Your task to perform on an android device: Do I have any events this weekend? Image 0: 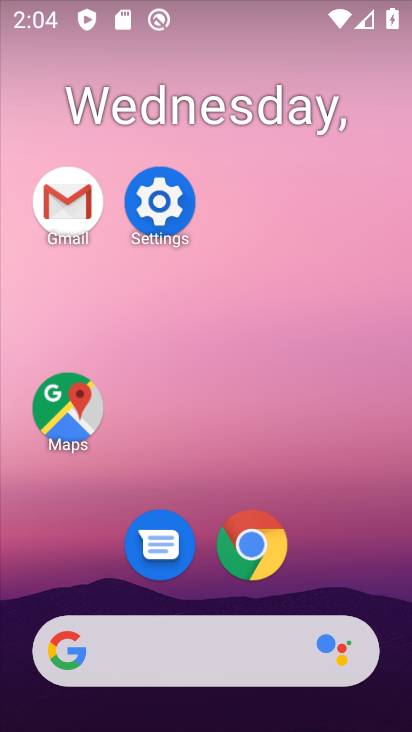
Step 0: drag from (318, 593) to (385, 180)
Your task to perform on an android device: Do I have any events this weekend? Image 1: 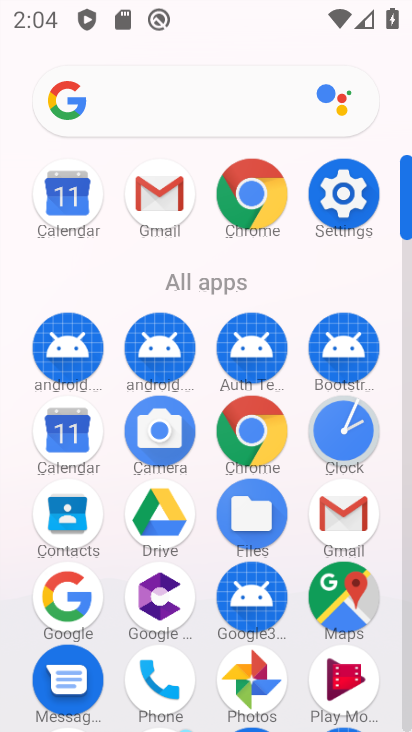
Step 1: drag from (90, 437) to (119, 307)
Your task to perform on an android device: Do I have any events this weekend? Image 2: 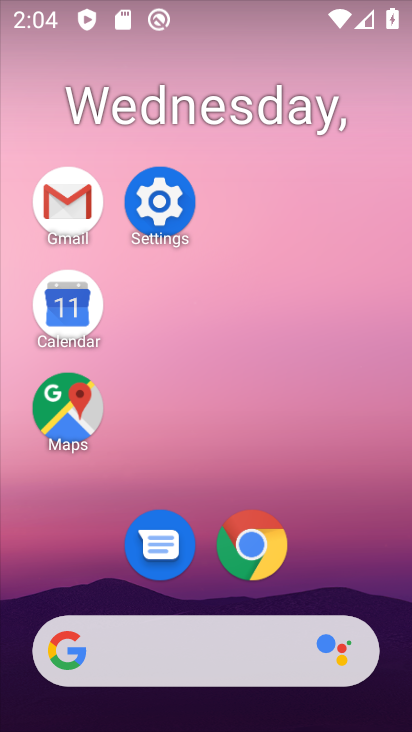
Step 2: click (79, 308)
Your task to perform on an android device: Do I have any events this weekend? Image 3: 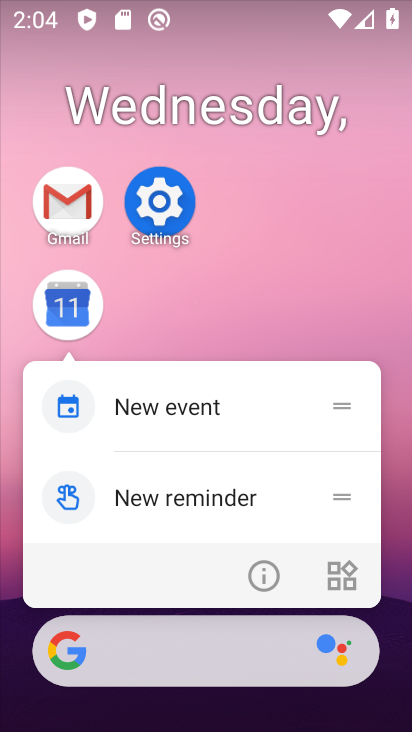
Step 3: click (85, 312)
Your task to perform on an android device: Do I have any events this weekend? Image 4: 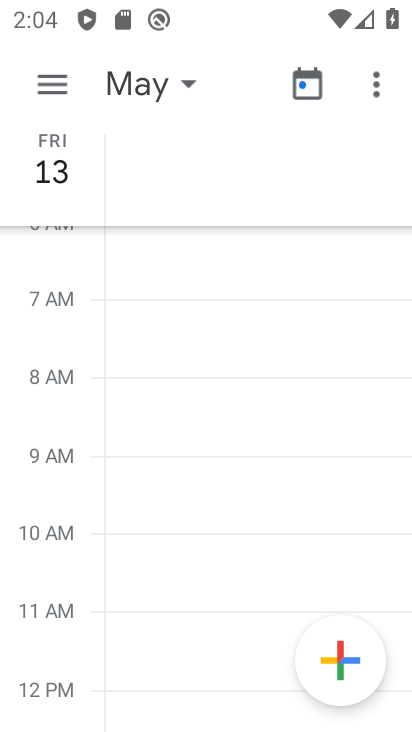
Step 4: click (67, 82)
Your task to perform on an android device: Do I have any events this weekend? Image 5: 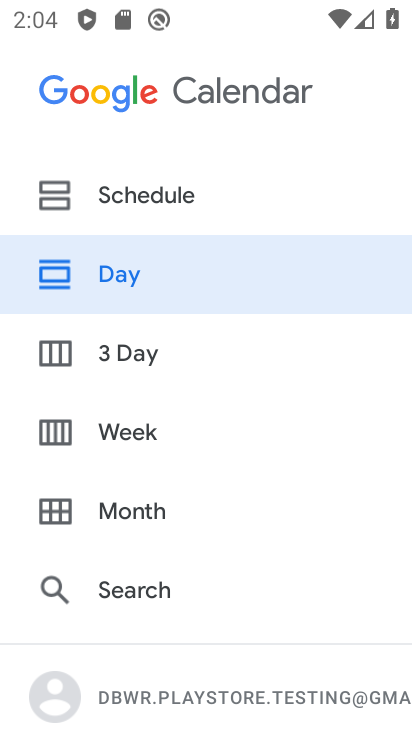
Step 5: click (147, 433)
Your task to perform on an android device: Do I have any events this weekend? Image 6: 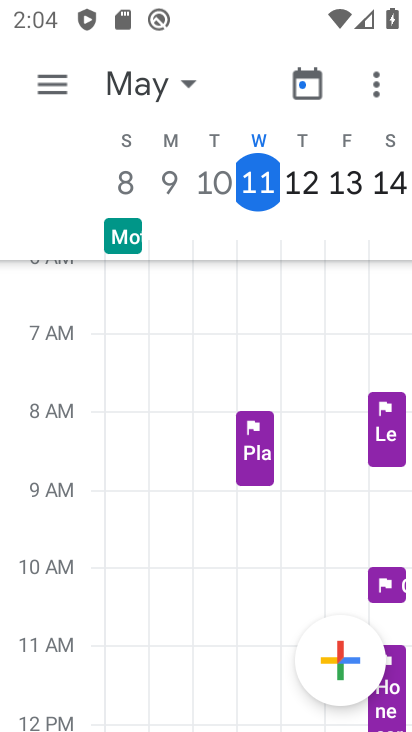
Step 6: task complete